Your task to perform on an android device: turn on bluetooth scan Image 0: 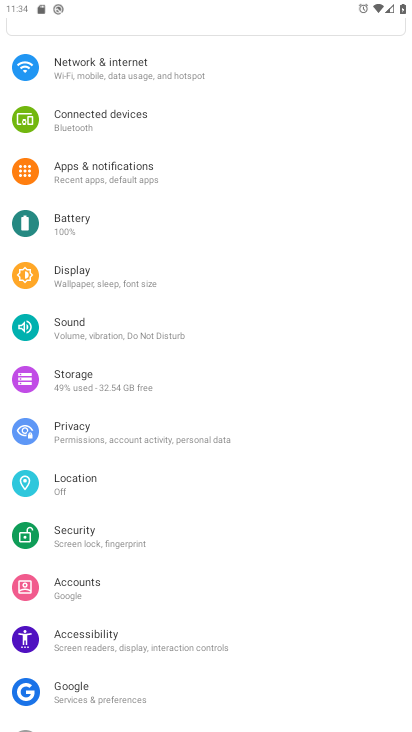
Step 0: click (183, 478)
Your task to perform on an android device: turn on bluetooth scan Image 1: 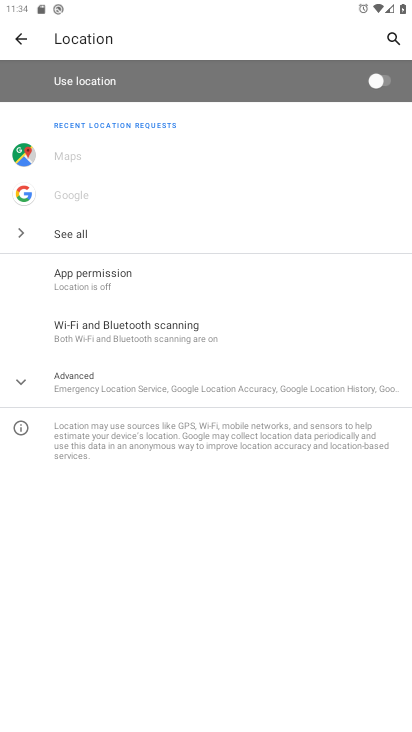
Step 1: click (312, 331)
Your task to perform on an android device: turn on bluetooth scan Image 2: 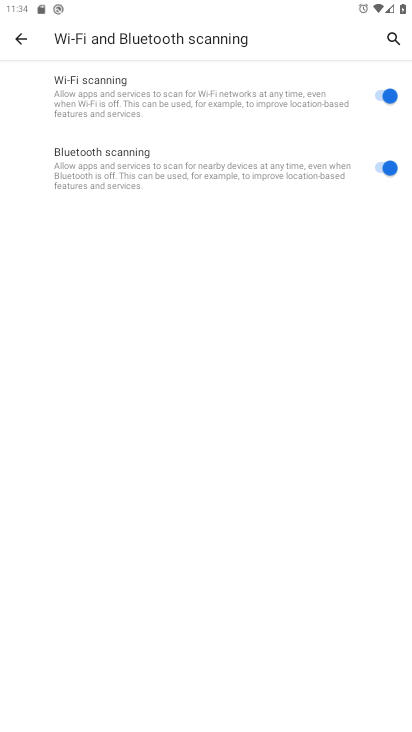
Step 2: task complete